Your task to perform on an android device: Open Android settings Image 0: 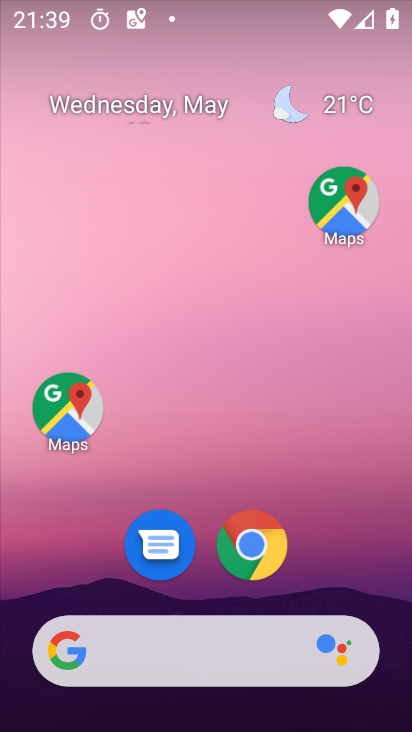
Step 0: drag from (313, 566) to (384, 99)
Your task to perform on an android device: Open Android settings Image 1: 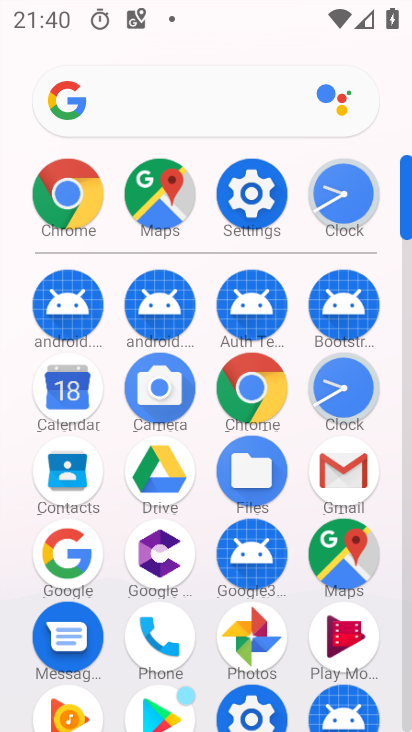
Step 1: click (268, 208)
Your task to perform on an android device: Open Android settings Image 2: 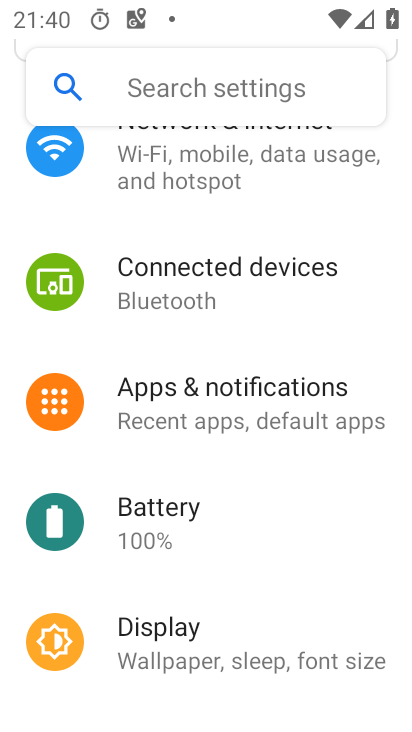
Step 2: drag from (215, 569) to (285, 301)
Your task to perform on an android device: Open Android settings Image 3: 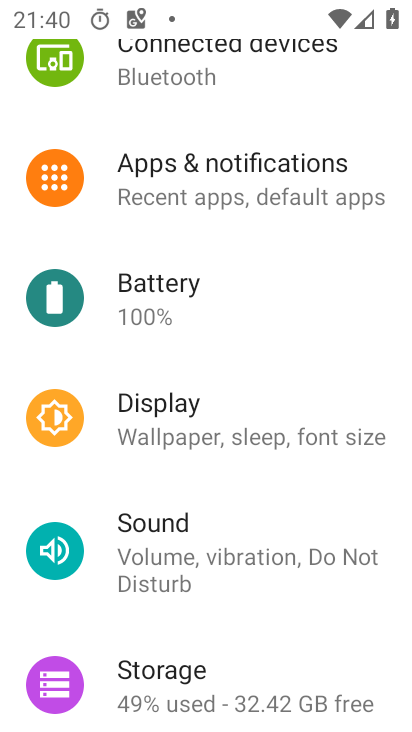
Step 3: drag from (244, 603) to (257, 280)
Your task to perform on an android device: Open Android settings Image 4: 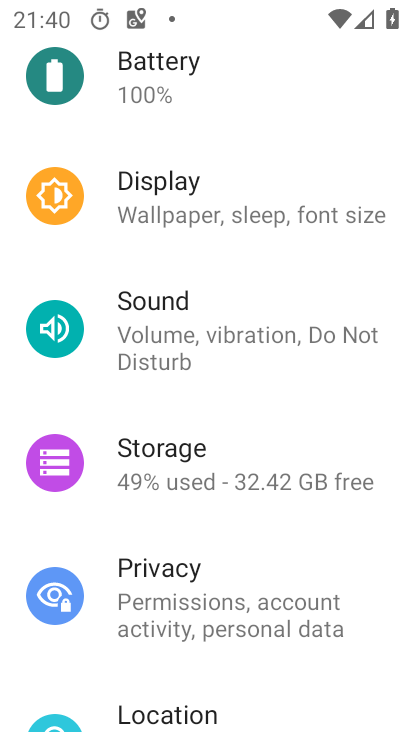
Step 4: drag from (190, 607) to (282, 312)
Your task to perform on an android device: Open Android settings Image 5: 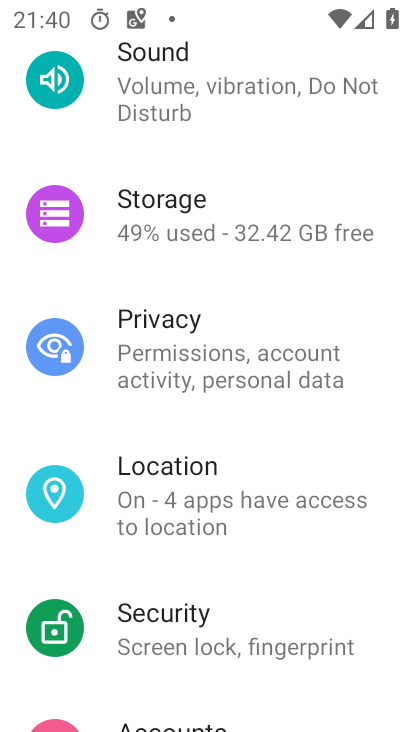
Step 5: drag from (201, 589) to (242, 307)
Your task to perform on an android device: Open Android settings Image 6: 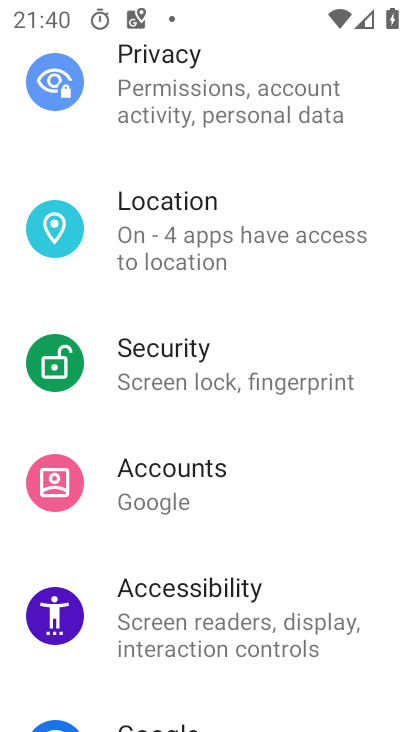
Step 6: drag from (216, 557) to (235, 339)
Your task to perform on an android device: Open Android settings Image 7: 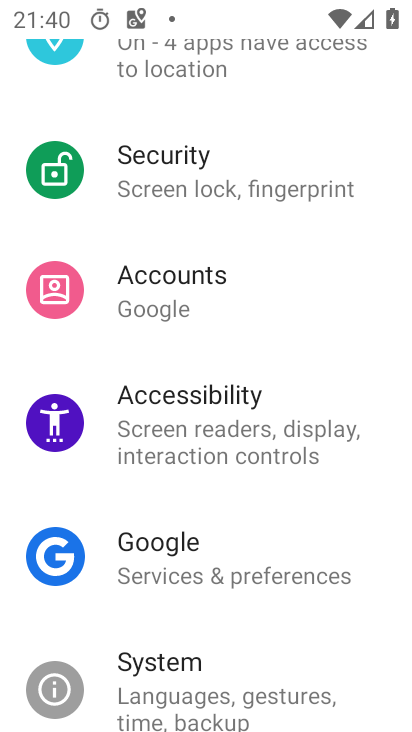
Step 7: drag from (246, 599) to (297, 280)
Your task to perform on an android device: Open Android settings Image 8: 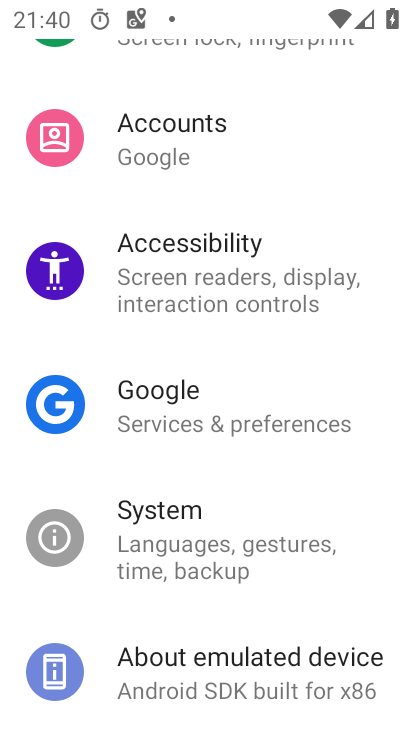
Step 8: click (185, 541)
Your task to perform on an android device: Open Android settings Image 9: 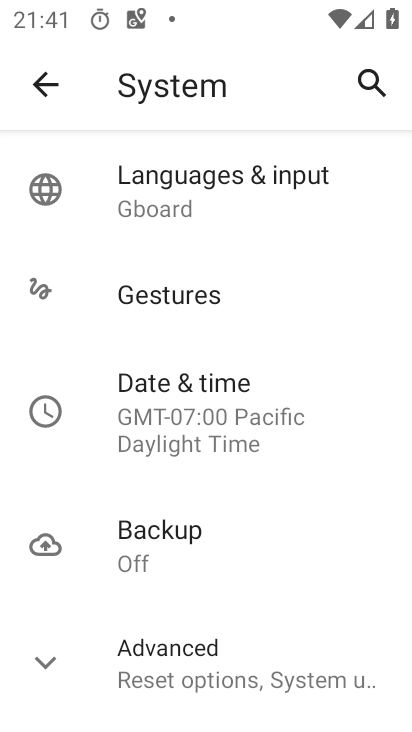
Step 9: task complete